Your task to perform on an android device: Open wifi settings Image 0: 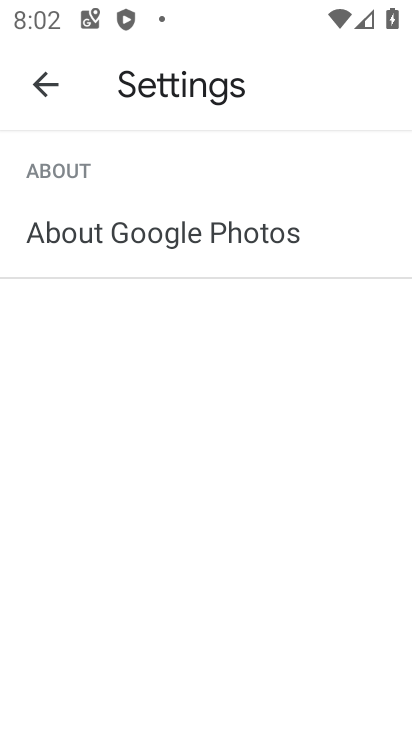
Step 0: press back button
Your task to perform on an android device: Open wifi settings Image 1: 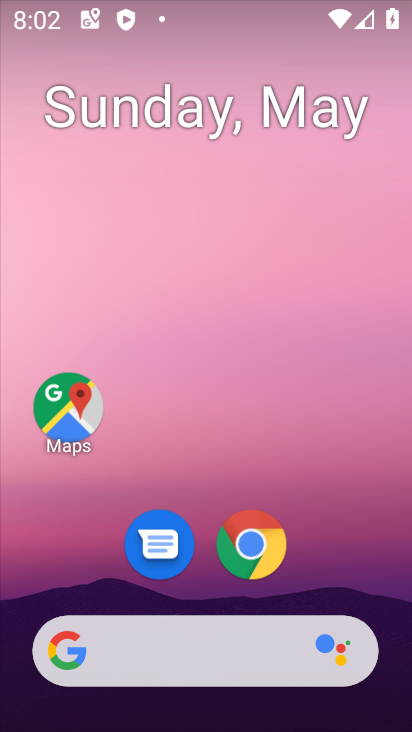
Step 1: drag from (361, 541) to (275, 5)
Your task to perform on an android device: Open wifi settings Image 2: 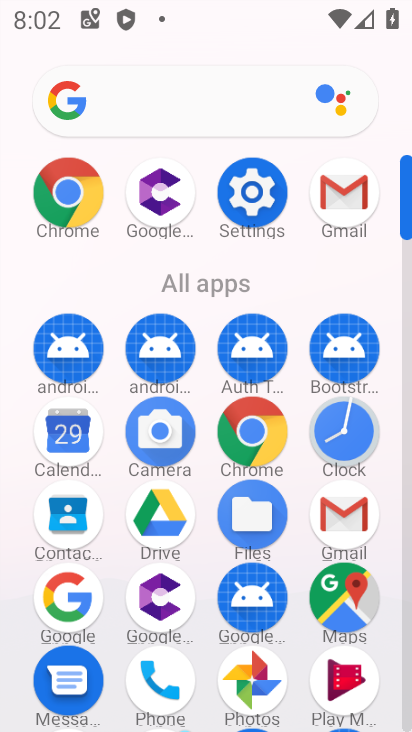
Step 2: click (253, 192)
Your task to perform on an android device: Open wifi settings Image 3: 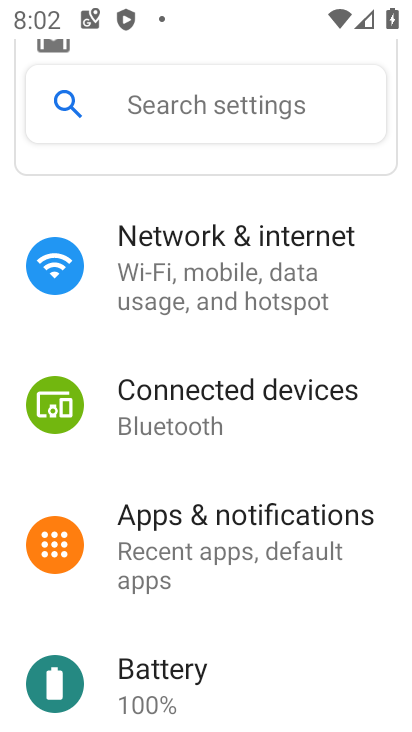
Step 3: click (206, 263)
Your task to perform on an android device: Open wifi settings Image 4: 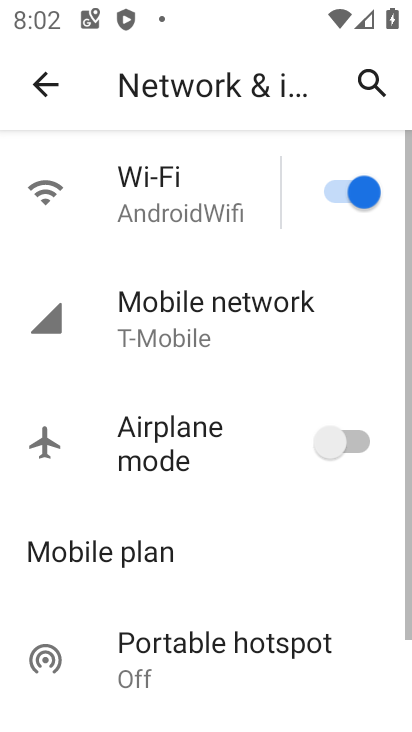
Step 4: click (185, 184)
Your task to perform on an android device: Open wifi settings Image 5: 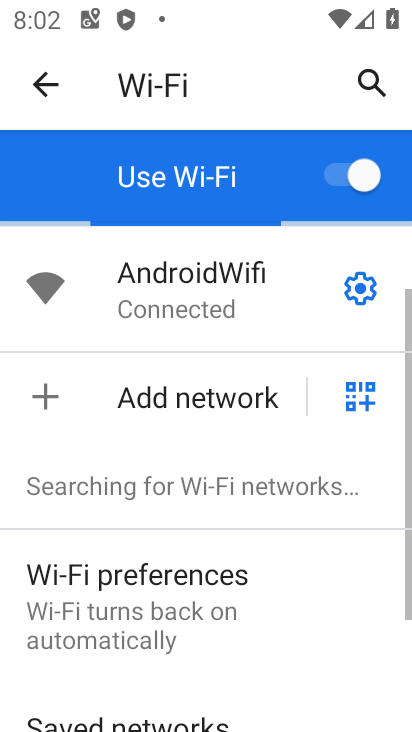
Step 5: task complete